Your task to perform on an android device: turn off priority inbox in the gmail app Image 0: 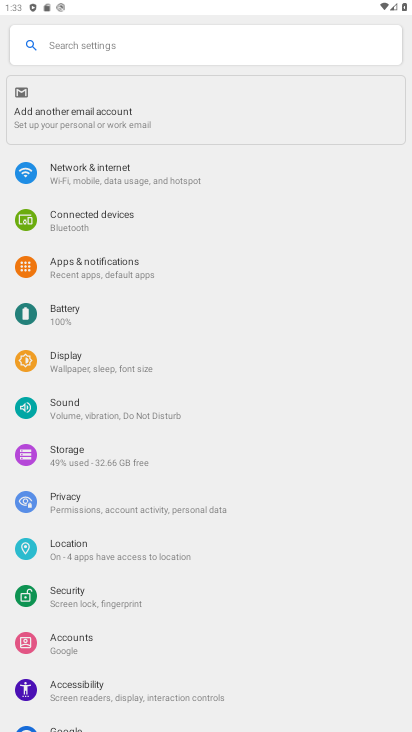
Step 0: press home button
Your task to perform on an android device: turn off priority inbox in the gmail app Image 1: 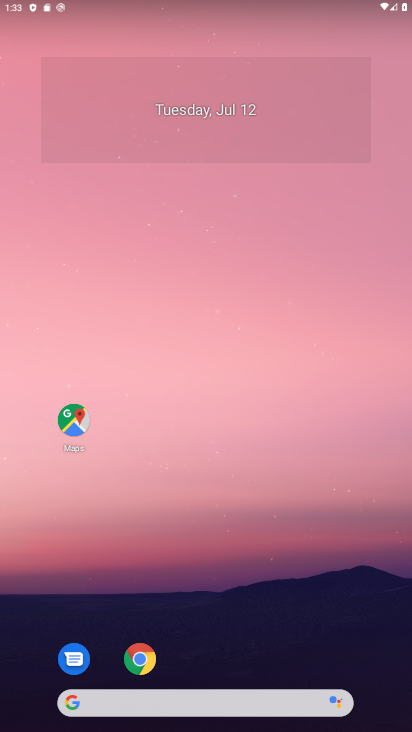
Step 1: drag from (208, 636) to (178, 191)
Your task to perform on an android device: turn off priority inbox in the gmail app Image 2: 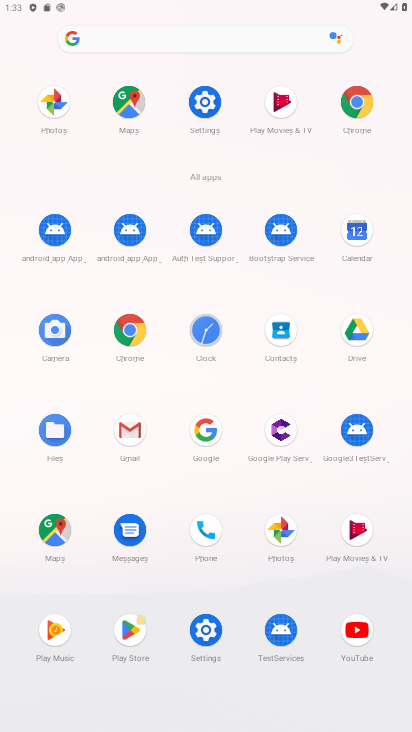
Step 2: click (134, 432)
Your task to perform on an android device: turn off priority inbox in the gmail app Image 3: 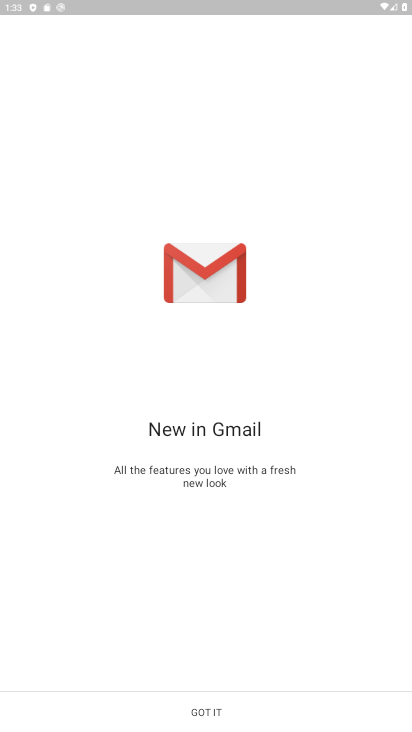
Step 3: click (206, 701)
Your task to perform on an android device: turn off priority inbox in the gmail app Image 4: 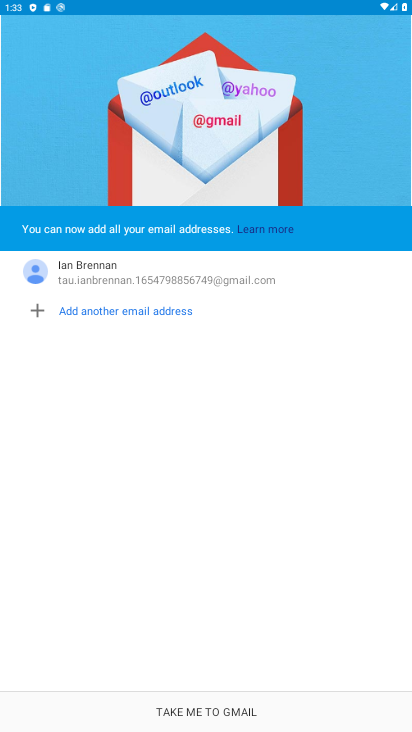
Step 4: click (215, 707)
Your task to perform on an android device: turn off priority inbox in the gmail app Image 5: 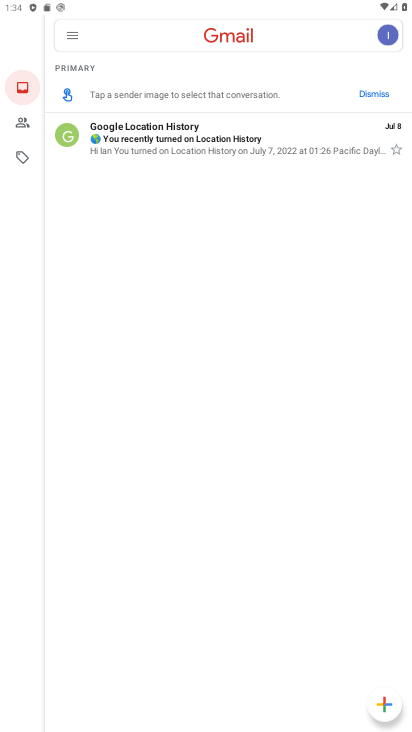
Step 5: click (71, 30)
Your task to perform on an android device: turn off priority inbox in the gmail app Image 6: 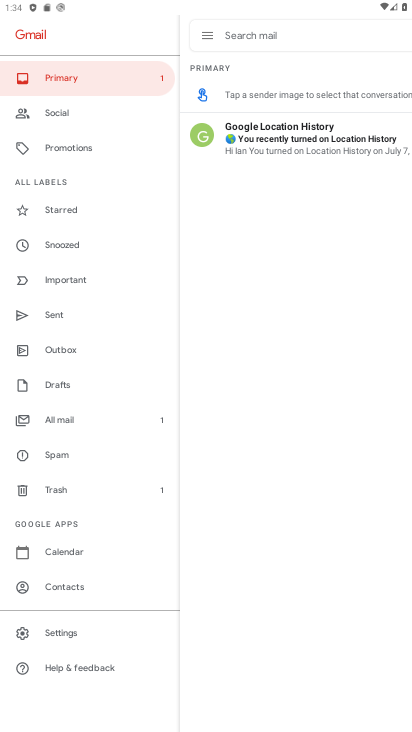
Step 6: click (66, 632)
Your task to perform on an android device: turn off priority inbox in the gmail app Image 7: 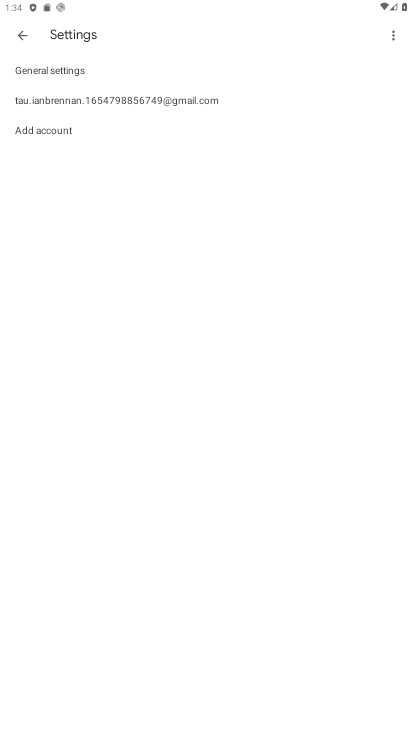
Step 7: click (142, 103)
Your task to perform on an android device: turn off priority inbox in the gmail app Image 8: 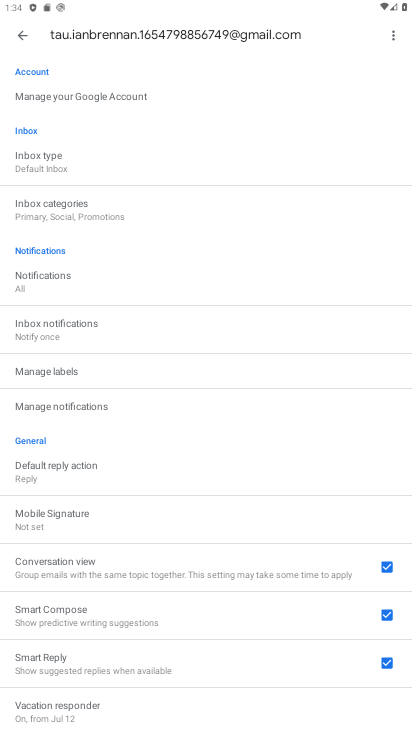
Step 8: drag from (109, 528) to (171, 582)
Your task to perform on an android device: turn off priority inbox in the gmail app Image 9: 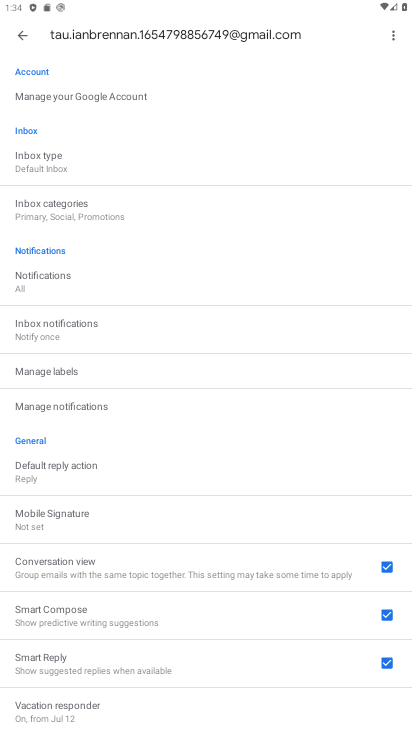
Step 9: click (44, 166)
Your task to perform on an android device: turn off priority inbox in the gmail app Image 10: 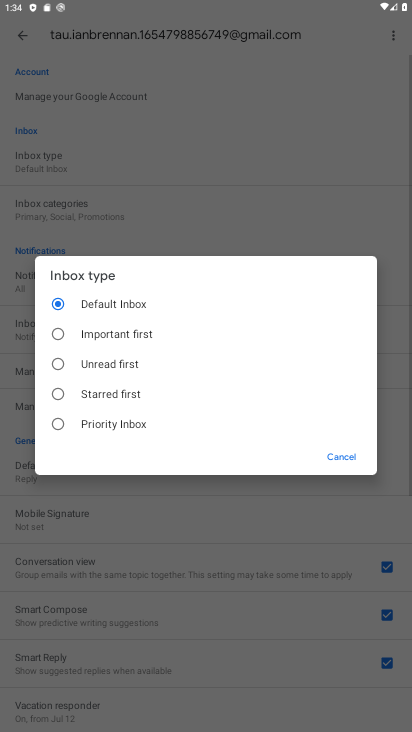
Step 10: task complete